Your task to perform on an android device: Go to Wikipedia Image 0: 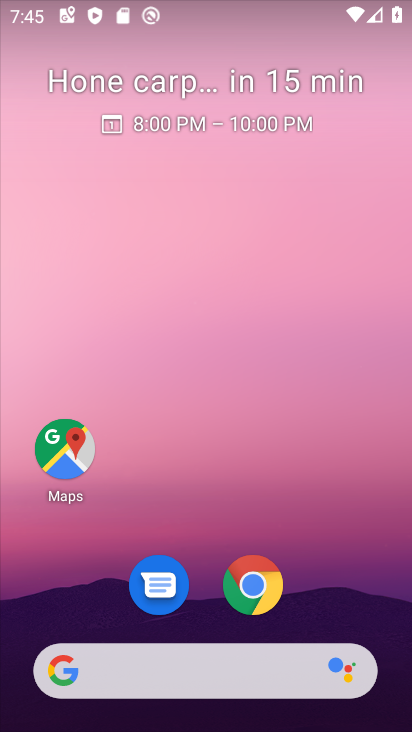
Step 0: click (269, 585)
Your task to perform on an android device: Go to Wikipedia Image 1: 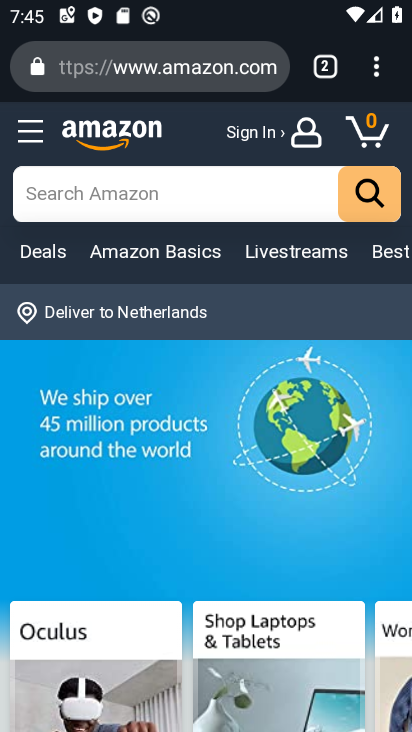
Step 1: click (372, 74)
Your task to perform on an android device: Go to Wikipedia Image 2: 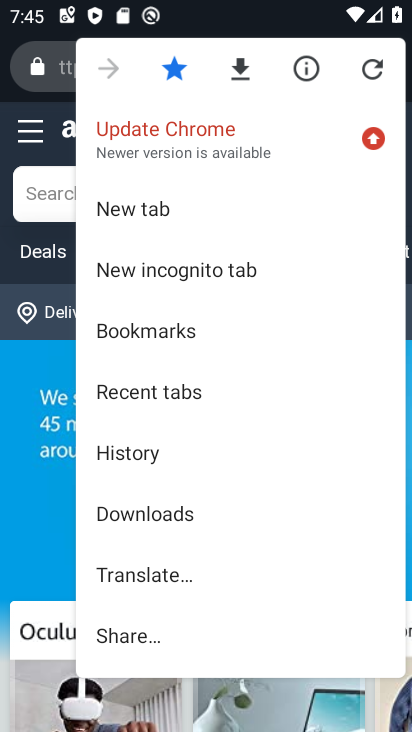
Step 2: click (198, 204)
Your task to perform on an android device: Go to Wikipedia Image 3: 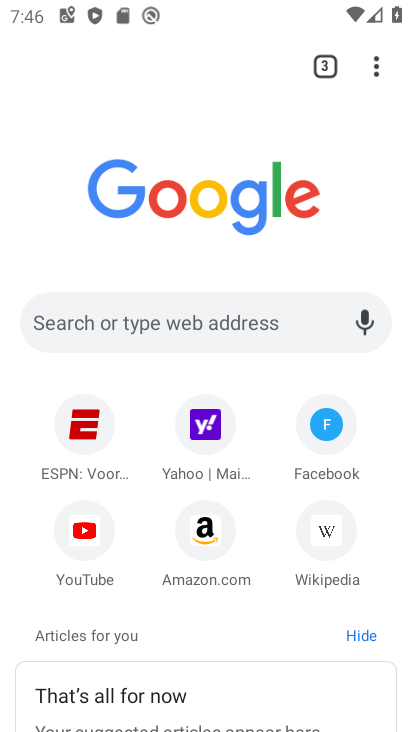
Step 3: click (342, 537)
Your task to perform on an android device: Go to Wikipedia Image 4: 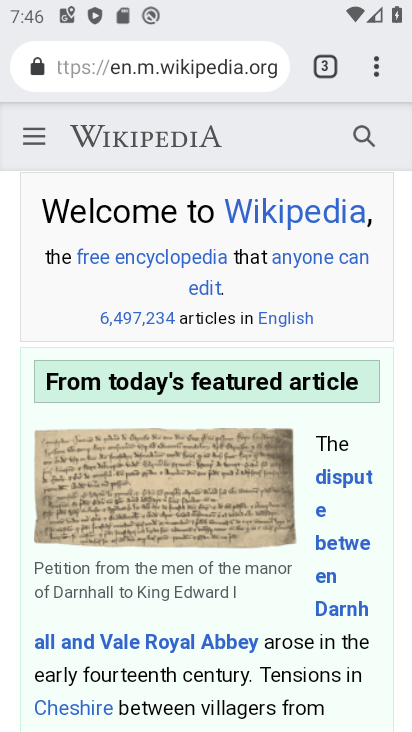
Step 4: task complete